Your task to perform on an android device: move an email to a new category in the gmail app Image 0: 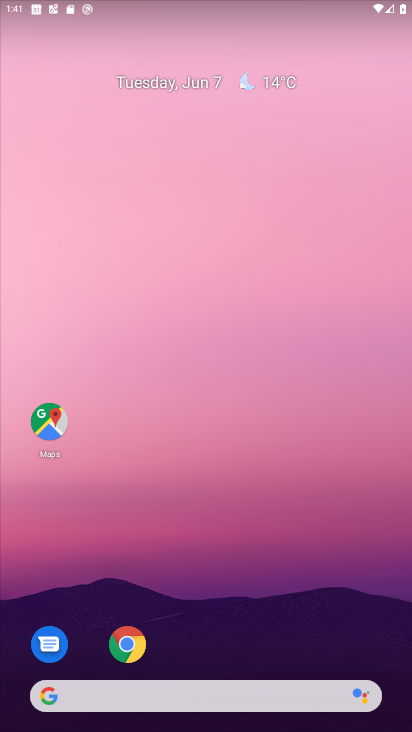
Step 0: drag from (243, 601) to (248, 3)
Your task to perform on an android device: move an email to a new category in the gmail app Image 1: 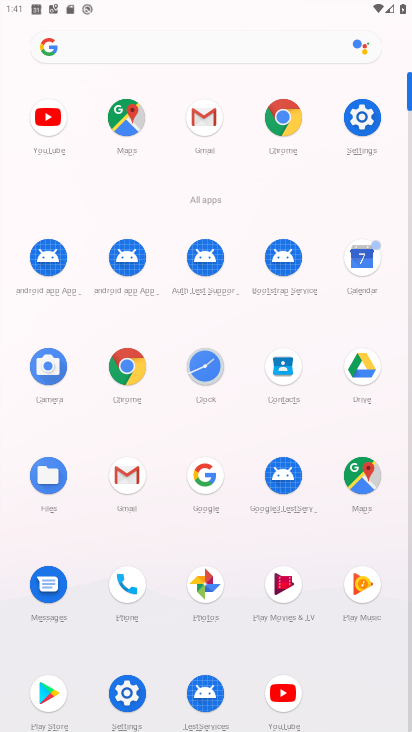
Step 1: click (197, 119)
Your task to perform on an android device: move an email to a new category in the gmail app Image 2: 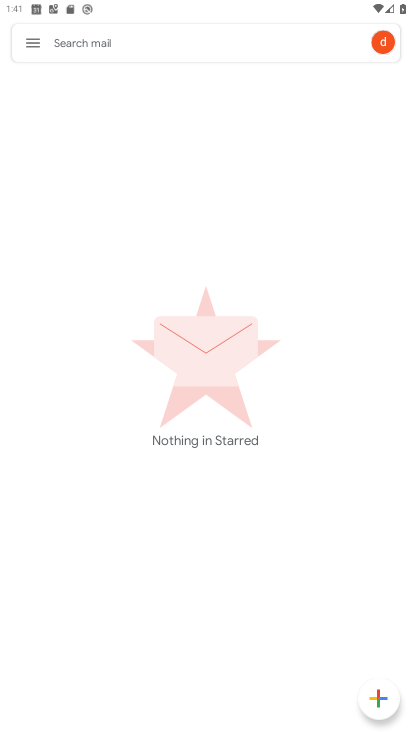
Step 2: click (18, 33)
Your task to perform on an android device: move an email to a new category in the gmail app Image 3: 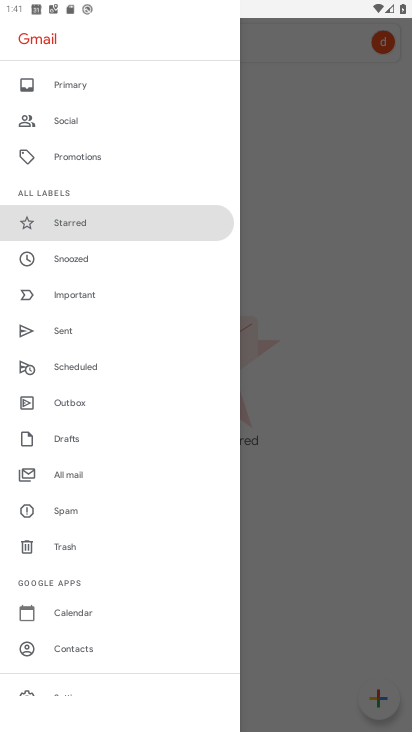
Step 3: click (88, 468)
Your task to perform on an android device: move an email to a new category in the gmail app Image 4: 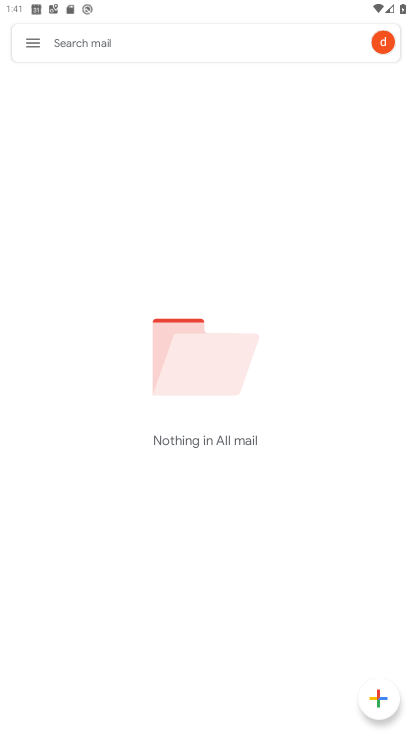
Step 4: task complete